Your task to perform on an android device: find which apps use the phone's location Image 0: 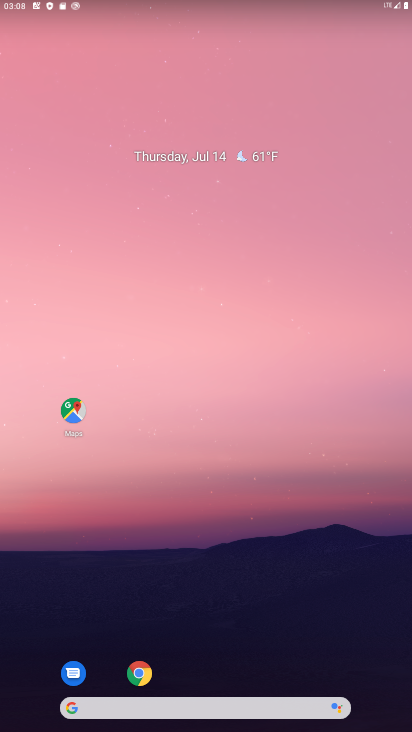
Step 0: drag from (211, 627) to (179, 92)
Your task to perform on an android device: find which apps use the phone's location Image 1: 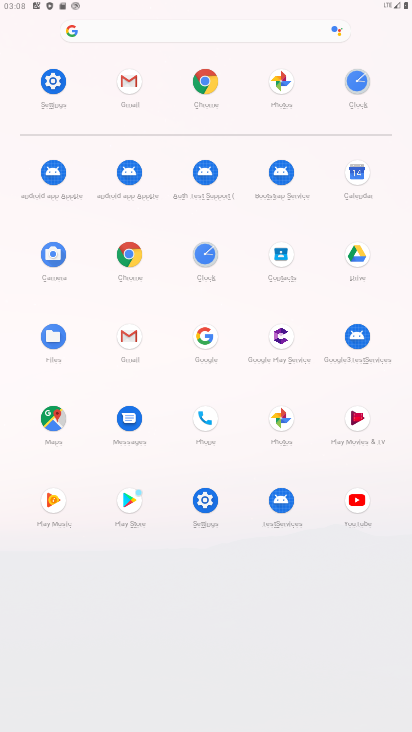
Step 1: click (48, 83)
Your task to perform on an android device: find which apps use the phone's location Image 2: 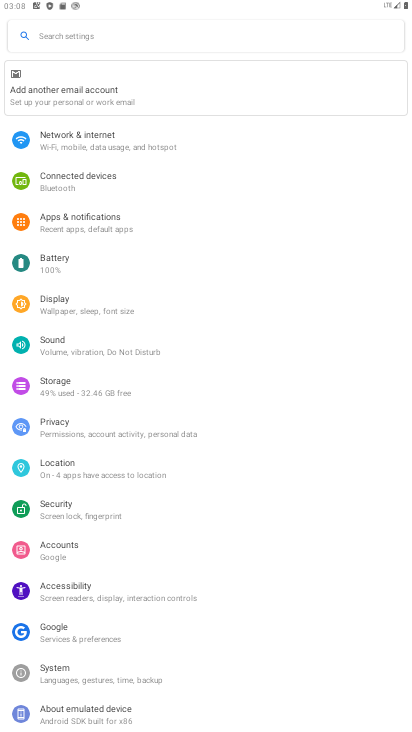
Step 2: click (54, 474)
Your task to perform on an android device: find which apps use the phone's location Image 3: 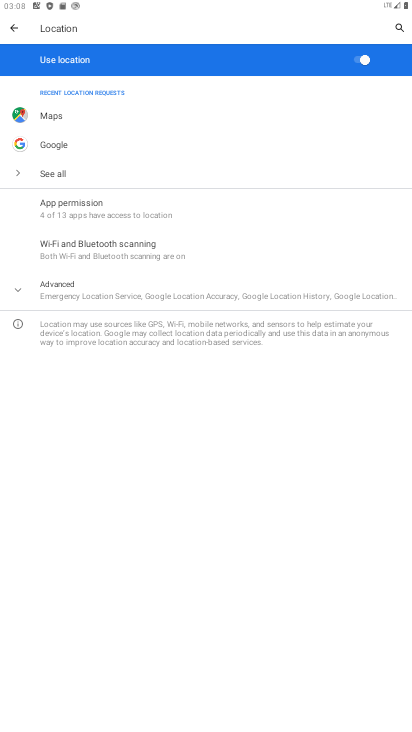
Step 3: click (72, 172)
Your task to perform on an android device: find which apps use the phone's location Image 4: 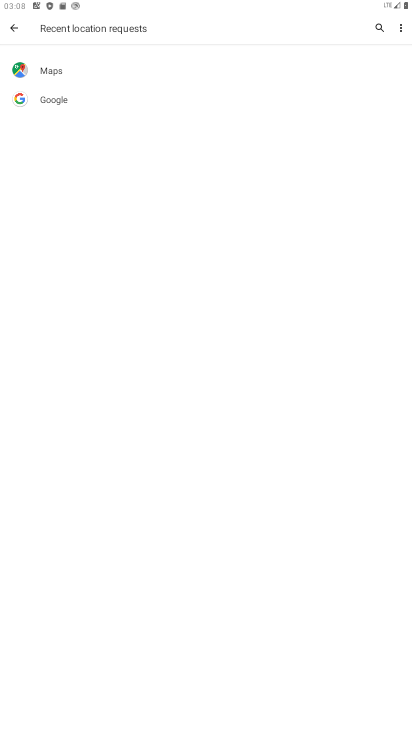
Step 4: task complete